Your task to perform on an android device: turn off sleep mode Image 0: 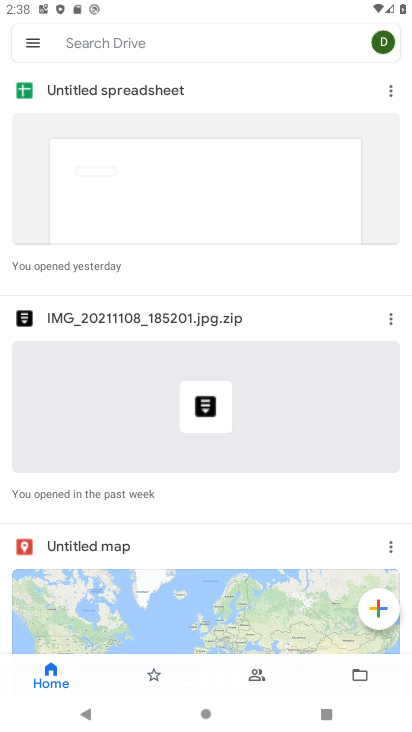
Step 0: press home button
Your task to perform on an android device: turn off sleep mode Image 1: 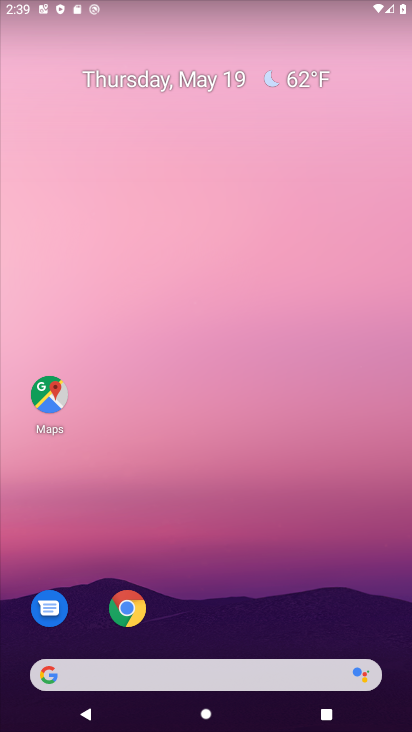
Step 1: drag from (233, 605) to (168, 206)
Your task to perform on an android device: turn off sleep mode Image 2: 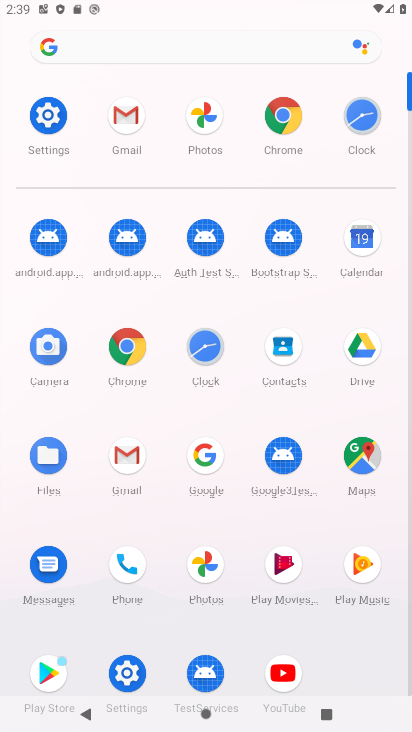
Step 2: click (45, 122)
Your task to perform on an android device: turn off sleep mode Image 3: 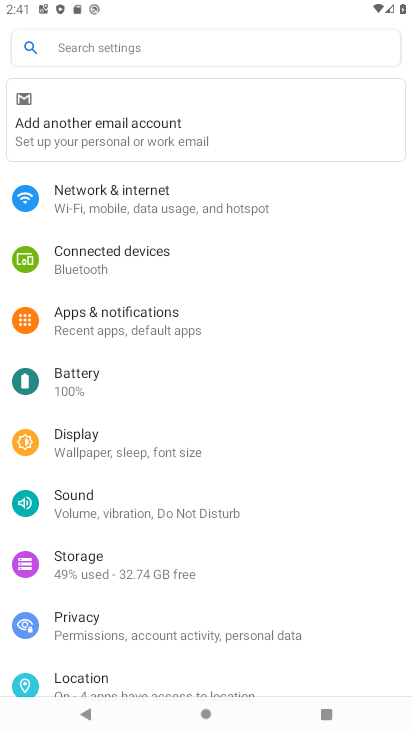
Step 3: task complete